Your task to perform on an android device: find snoozed emails in the gmail app Image 0: 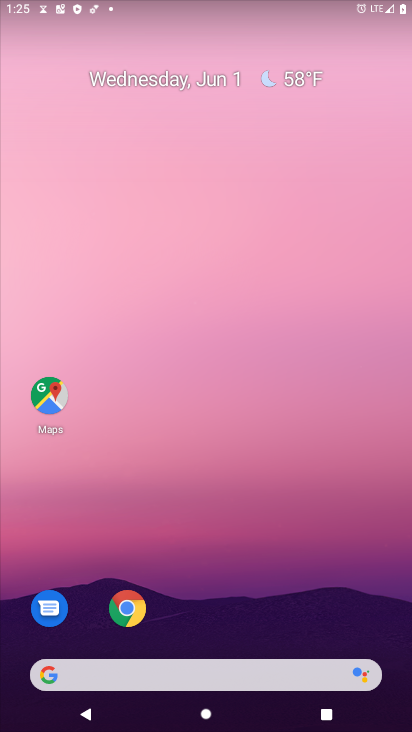
Step 0: click (247, 100)
Your task to perform on an android device: find snoozed emails in the gmail app Image 1: 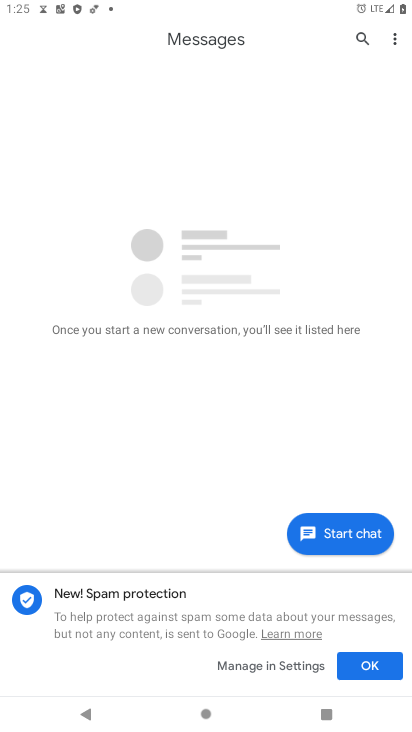
Step 1: press home button
Your task to perform on an android device: find snoozed emails in the gmail app Image 2: 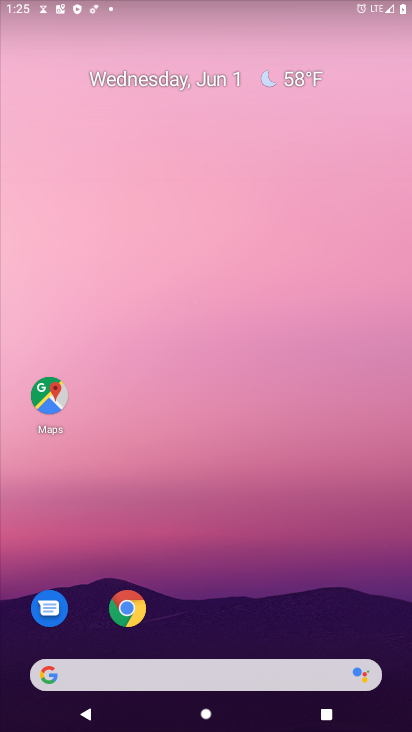
Step 2: drag from (293, 599) to (228, 64)
Your task to perform on an android device: find snoozed emails in the gmail app Image 3: 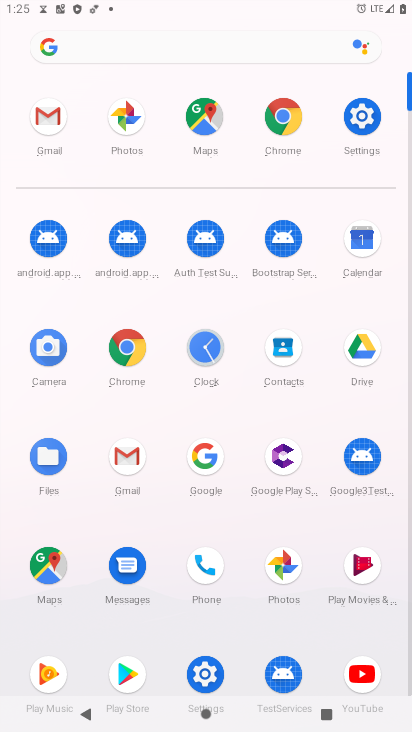
Step 3: click (41, 121)
Your task to perform on an android device: find snoozed emails in the gmail app Image 4: 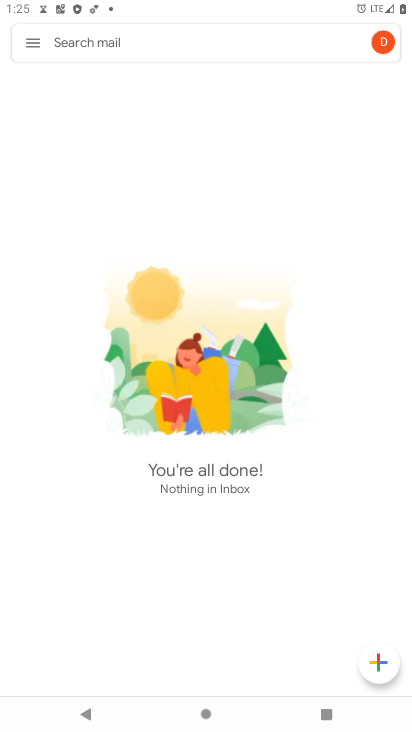
Step 4: click (36, 32)
Your task to perform on an android device: find snoozed emails in the gmail app Image 5: 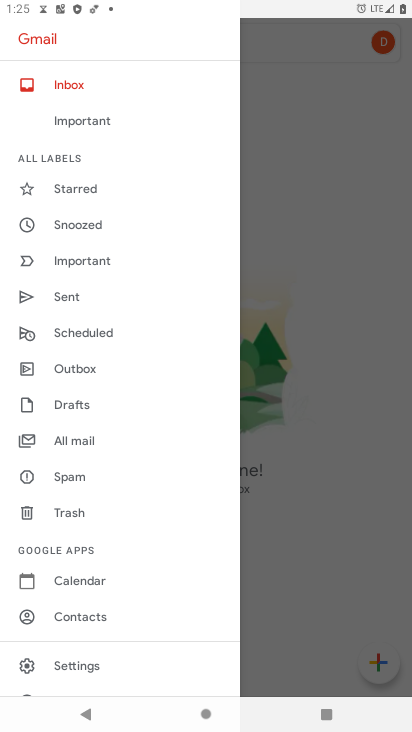
Step 5: click (92, 213)
Your task to perform on an android device: find snoozed emails in the gmail app Image 6: 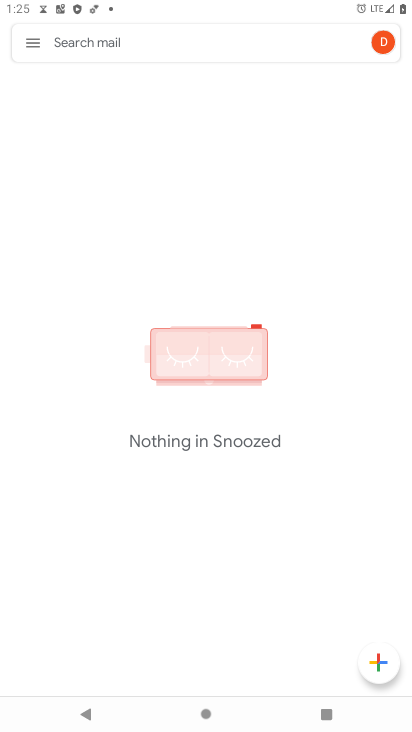
Step 6: task complete